Your task to perform on an android device: Open Youtube and go to "Your channel" Image 0: 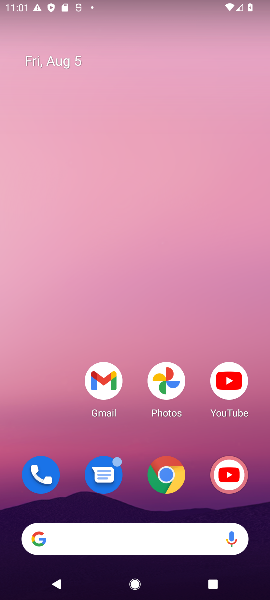
Step 0: click (225, 475)
Your task to perform on an android device: Open Youtube and go to "Your channel" Image 1: 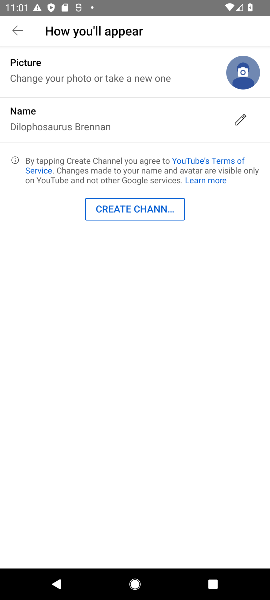
Step 1: task complete